Your task to perform on an android device: open a new tab in the chrome app Image 0: 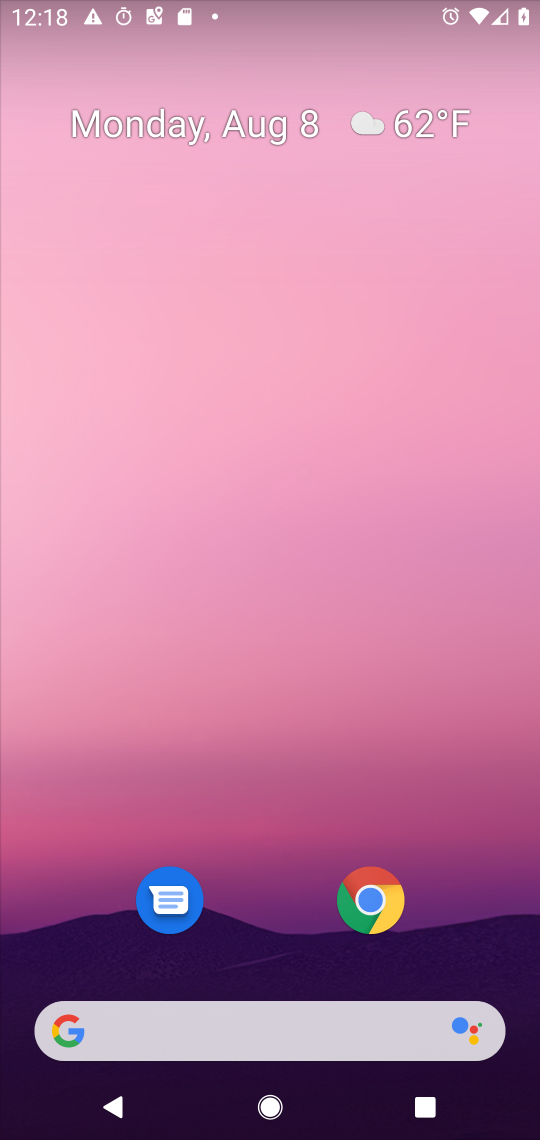
Step 0: press home button
Your task to perform on an android device: open a new tab in the chrome app Image 1: 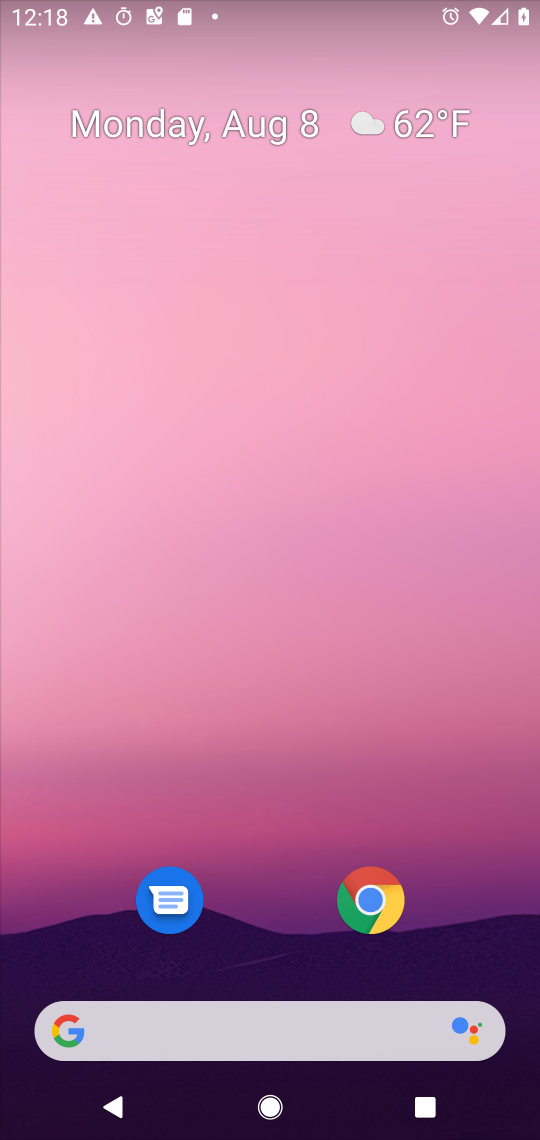
Step 1: drag from (276, 924) to (275, 44)
Your task to perform on an android device: open a new tab in the chrome app Image 2: 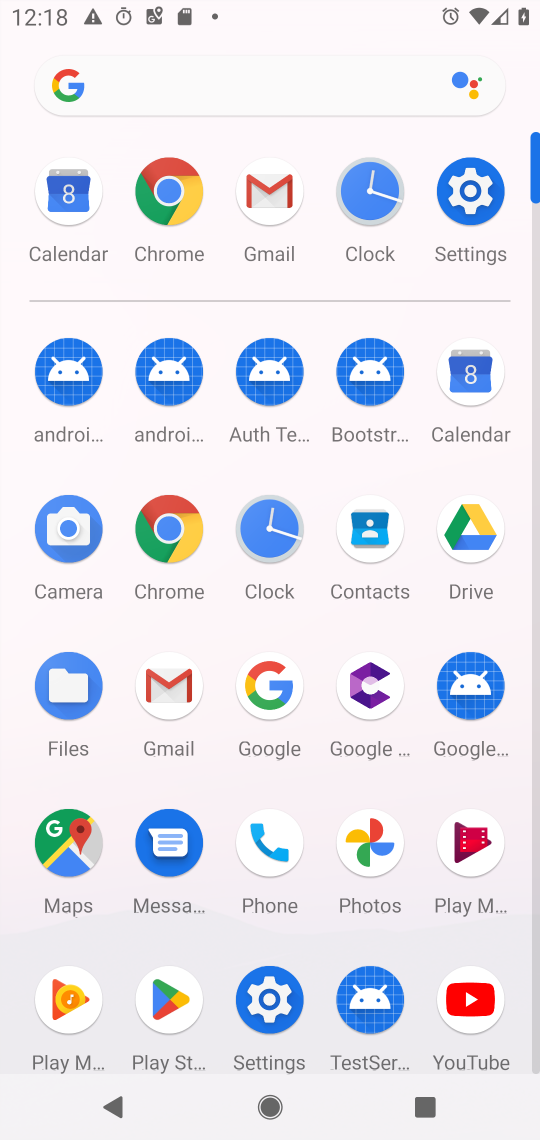
Step 2: click (161, 516)
Your task to perform on an android device: open a new tab in the chrome app Image 3: 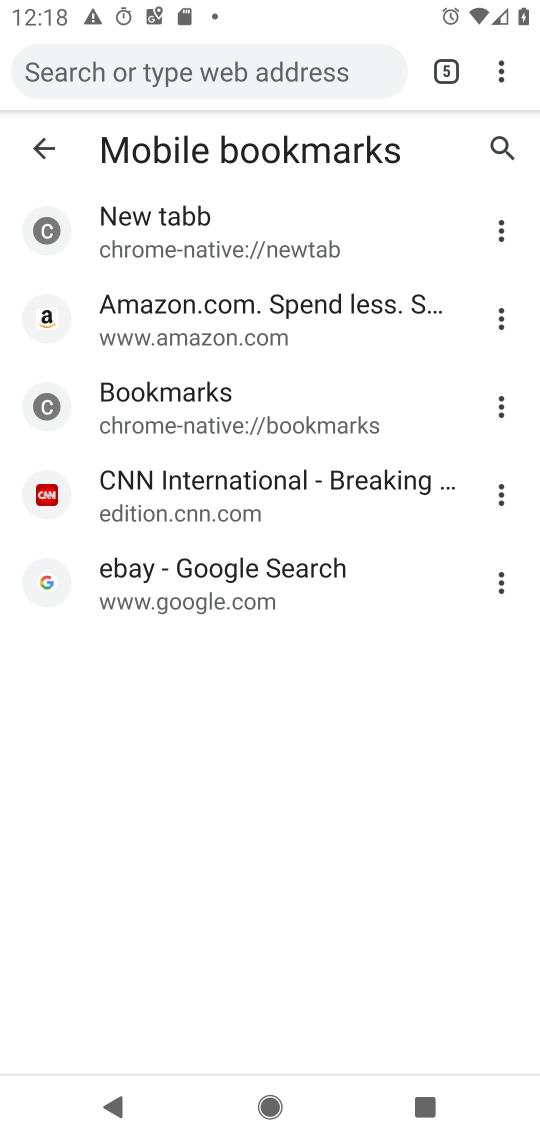
Step 3: click (448, 63)
Your task to perform on an android device: open a new tab in the chrome app Image 4: 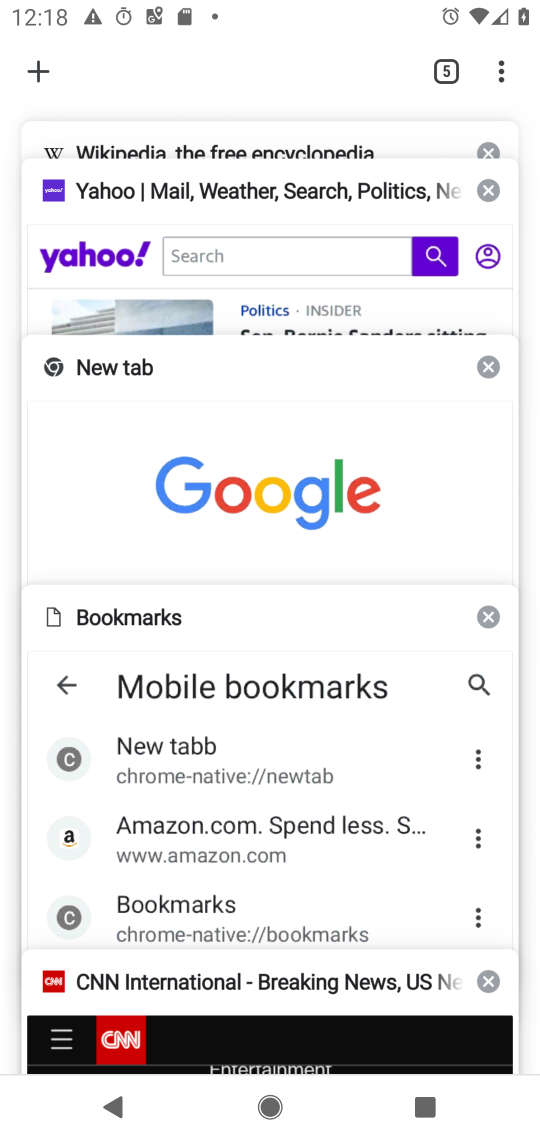
Step 4: click (46, 70)
Your task to perform on an android device: open a new tab in the chrome app Image 5: 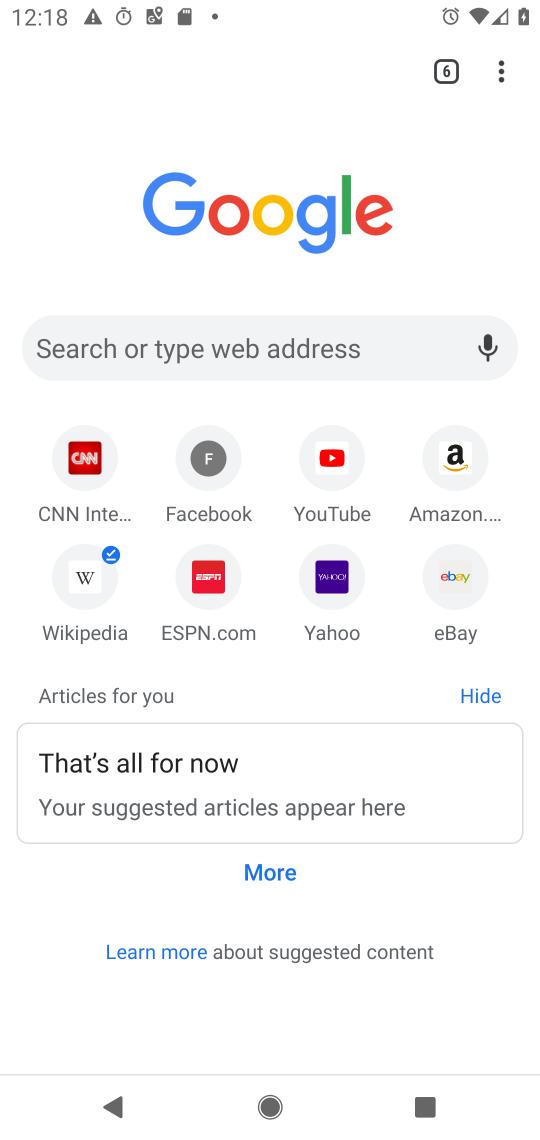
Step 5: task complete